Your task to perform on an android device: create a new album in the google photos Image 0: 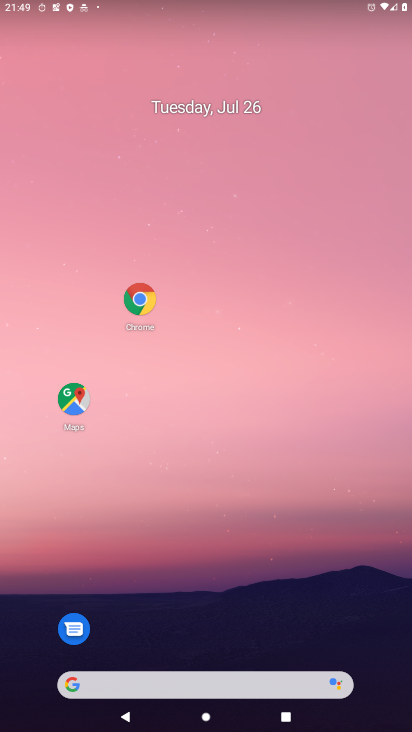
Step 0: drag from (201, 218) to (191, 137)
Your task to perform on an android device: create a new album in the google photos Image 1: 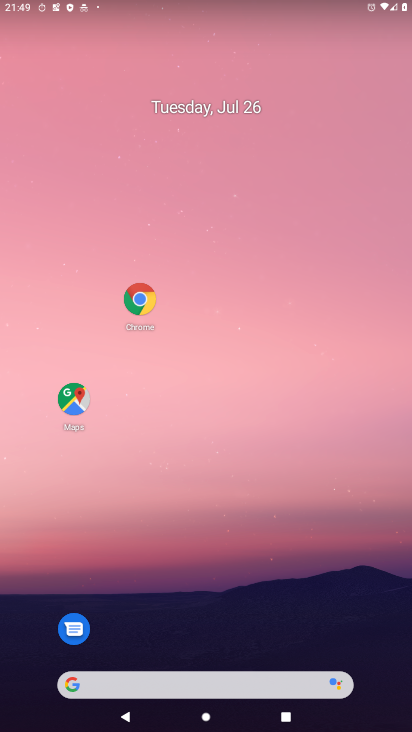
Step 1: drag from (210, 130) to (201, 61)
Your task to perform on an android device: create a new album in the google photos Image 2: 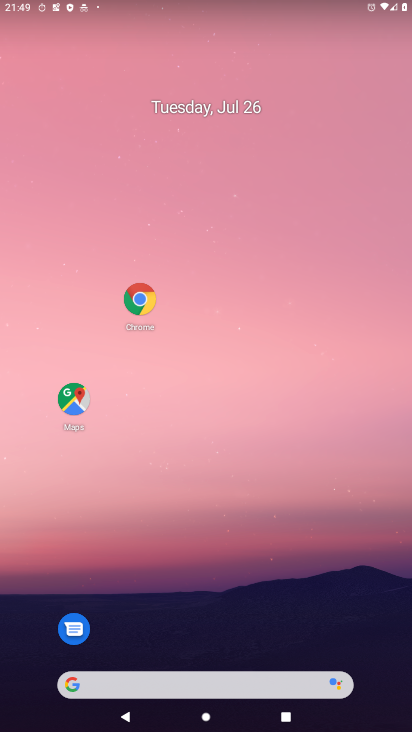
Step 2: drag from (196, 560) to (211, 131)
Your task to perform on an android device: create a new album in the google photos Image 3: 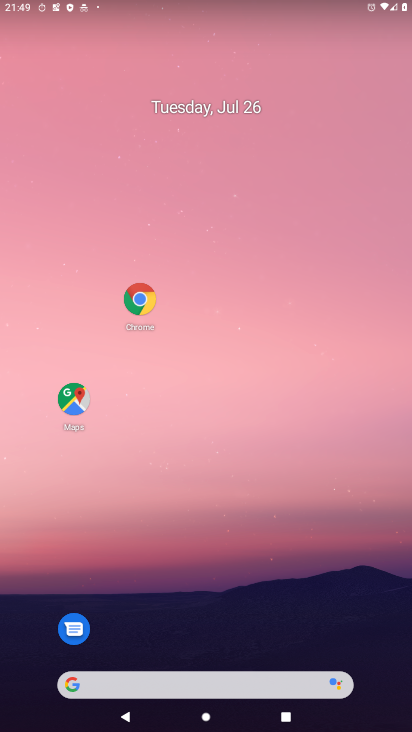
Step 3: click (229, 177)
Your task to perform on an android device: create a new album in the google photos Image 4: 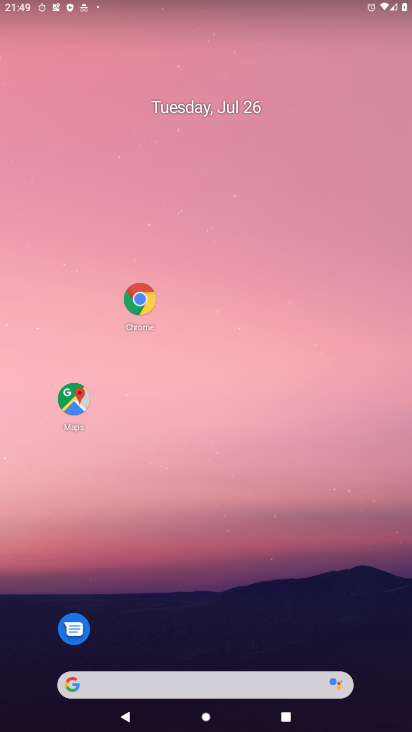
Step 4: drag from (238, 626) to (191, 130)
Your task to perform on an android device: create a new album in the google photos Image 5: 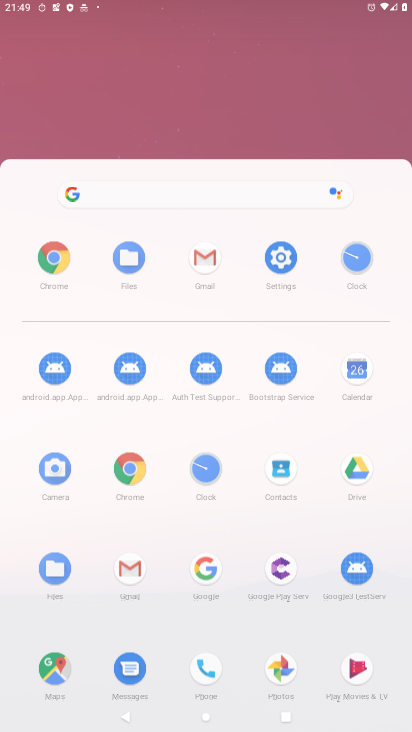
Step 5: drag from (204, 459) to (165, 136)
Your task to perform on an android device: create a new album in the google photos Image 6: 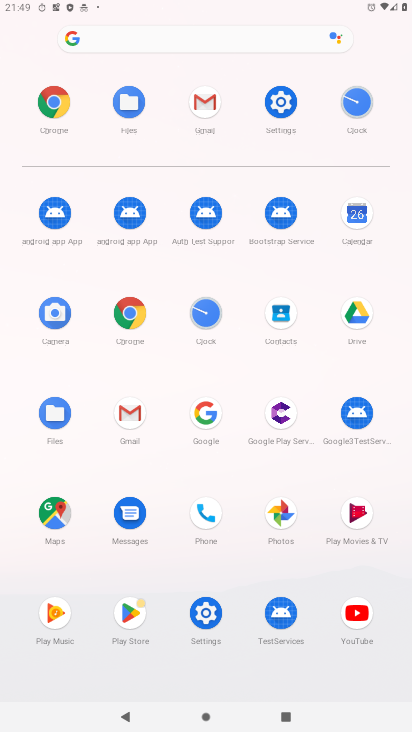
Step 6: click (271, 518)
Your task to perform on an android device: create a new album in the google photos Image 7: 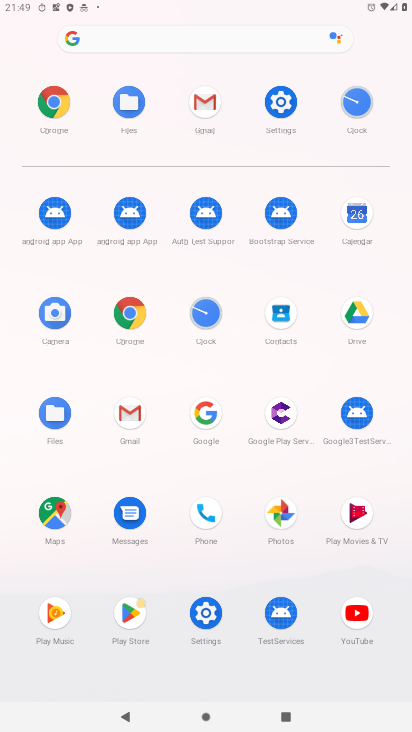
Step 7: click (275, 516)
Your task to perform on an android device: create a new album in the google photos Image 8: 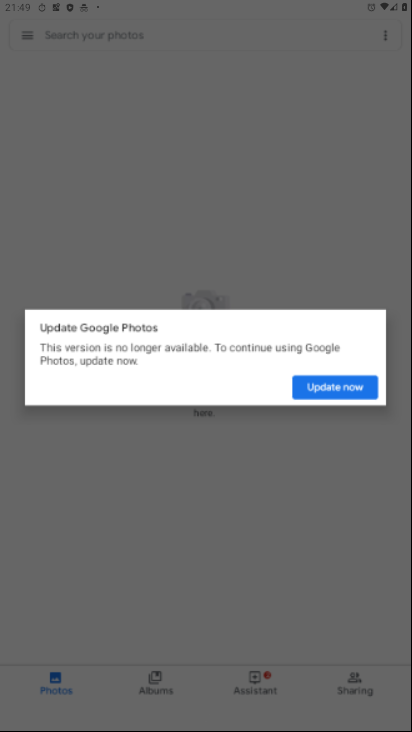
Step 8: click (277, 519)
Your task to perform on an android device: create a new album in the google photos Image 9: 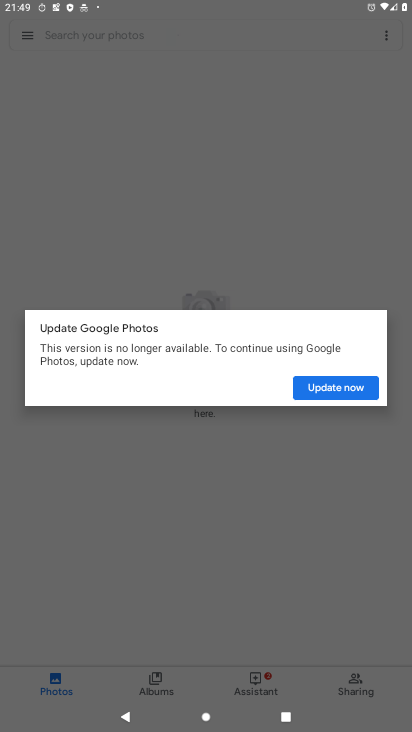
Step 9: click (217, 213)
Your task to perform on an android device: create a new album in the google photos Image 10: 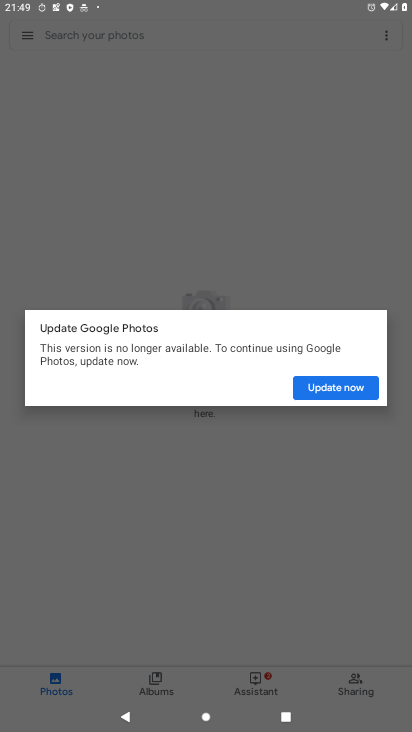
Step 10: click (207, 199)
Your task to perform on an android device: create a new album in the google photos Image 11: 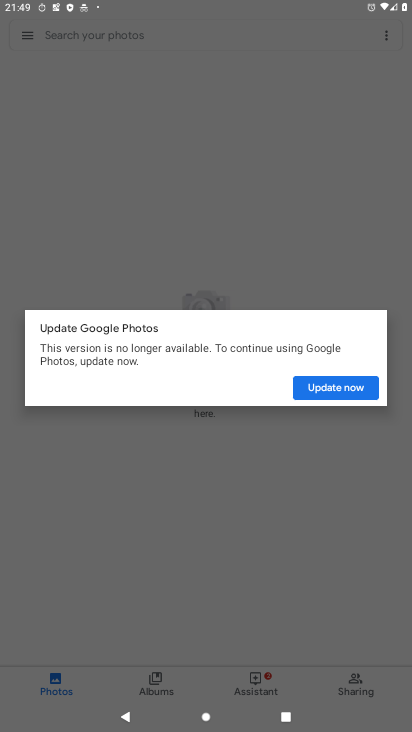
Step 11: click (171, 174)
Your task to perform on an android device: create a new album in the google photos Image 12: 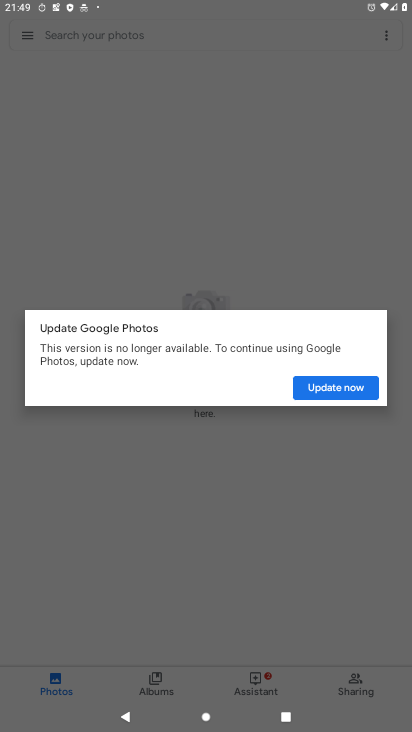
Step 12: click (170, 168)
Your task to perform on an android device: create a new album in the google photos Image 13: 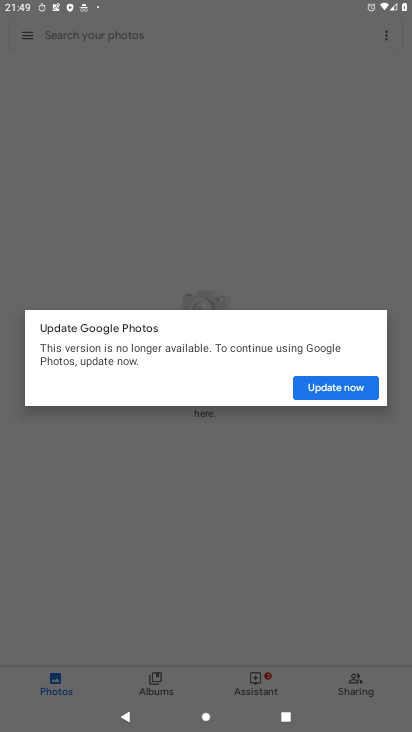
Step 13: click (236, 470)
Your task to perform on an android device: create a new album in the google photos Image 14: 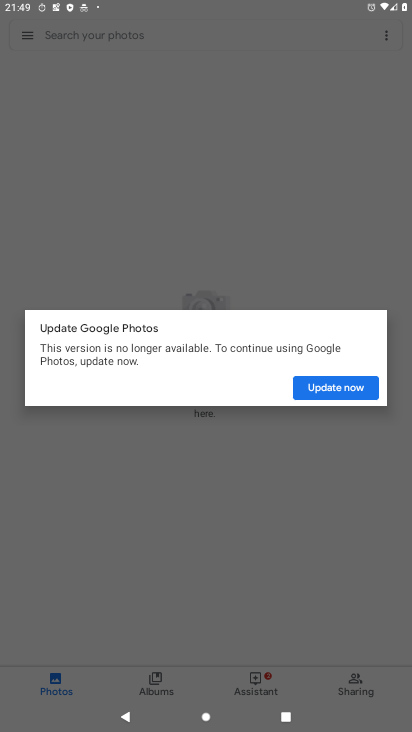
Step 14: click (233, 477)
Your task to perform on an android device: create a new album in the google photos Image 15: 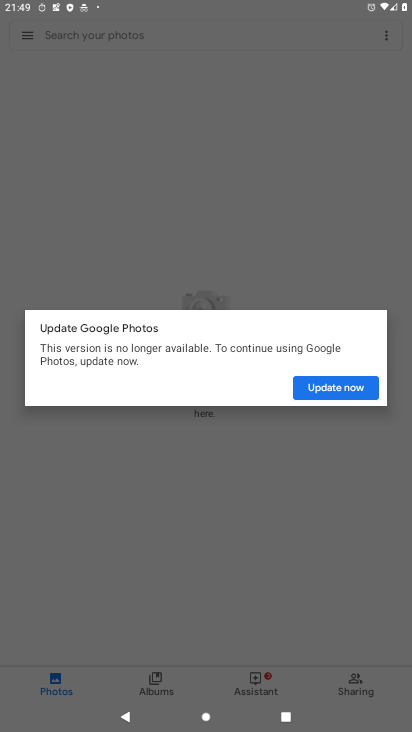
Step 15: click (146, 162)
Your task to perform on an android device: create a new album in the google photos Image 16: 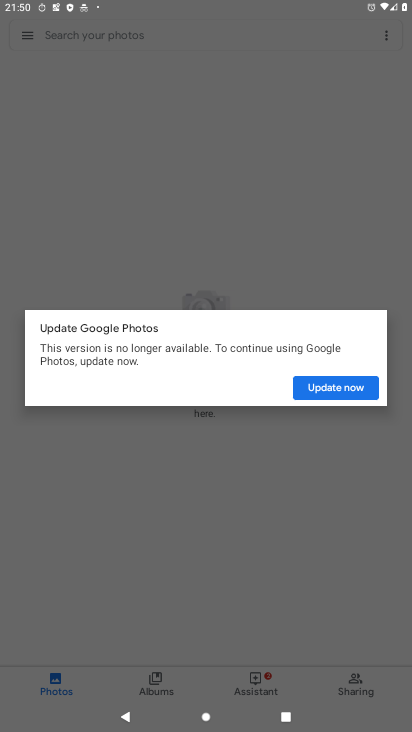
Step 16: click (299, 240)
Your task to perform on an android device: create a new album in the google photos Image 17: 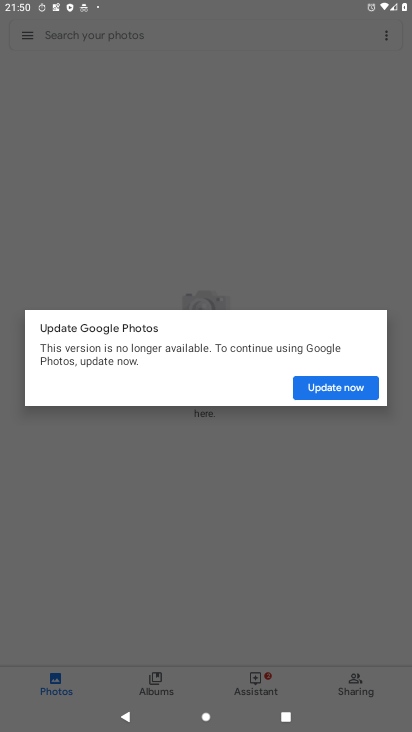
Step 17: click (346, 388)
Your task to perform on an android device: create a new album in the google photos Image 18: 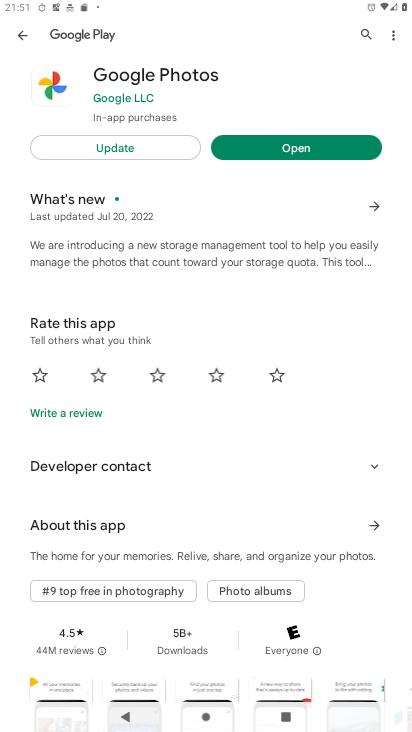
Step 18: click (307, 149)
Your task to perform on an android device: create a new album in the google photos Image 19: 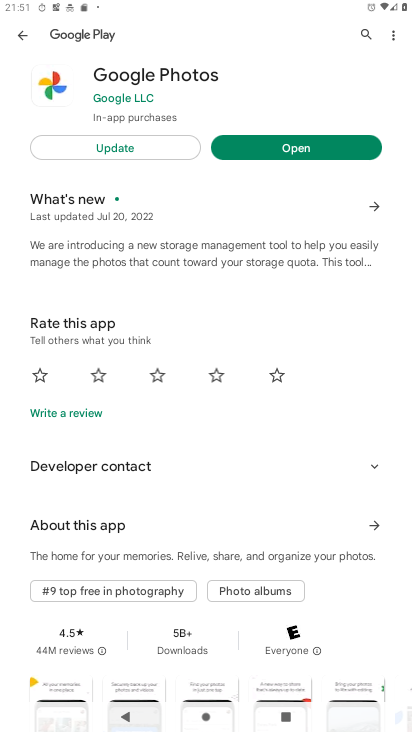
Step 19: click (307, 149)
Your task to perform on an android device: create a new album in the google photos Image 20: 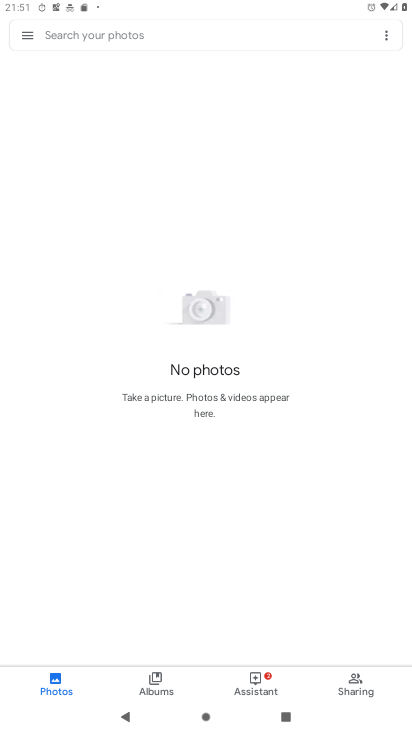
Step 20: click (168, 685)
Your task to perform on an android device: create a new album in the google photos Image 21: 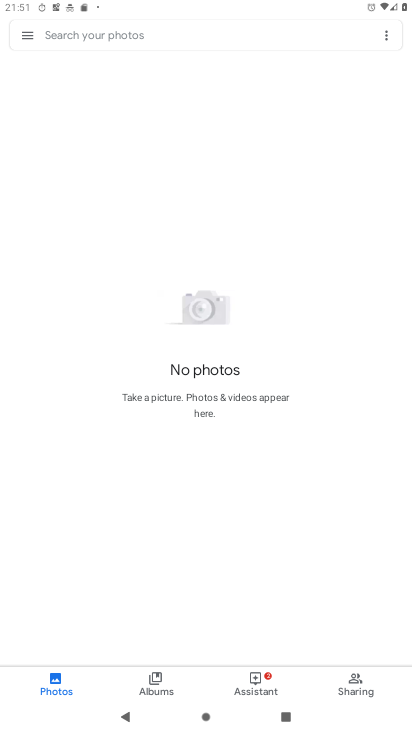
Step 21: click (155, 699)
Your task to perform on an android device: create a new album in the google photos Image 22: 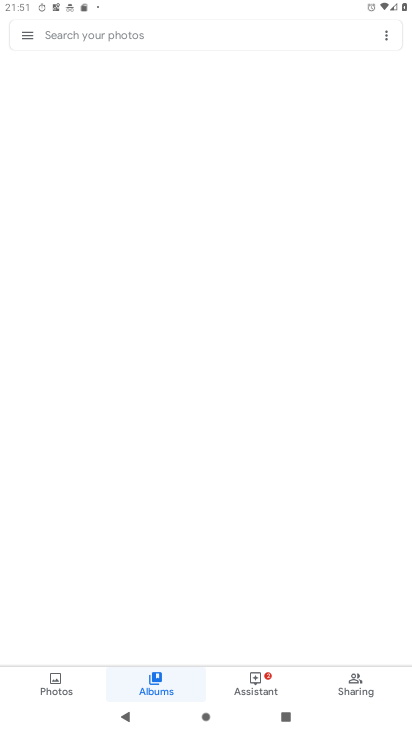
Step 22: click (156, 699)
Your task to perform on an android device: create a new album in the google photos Image 23: 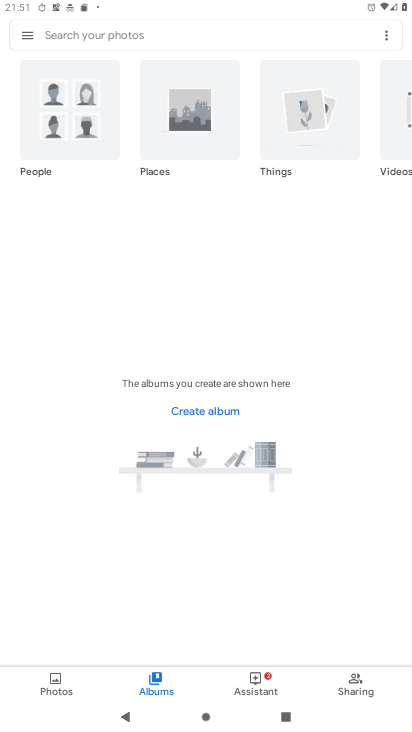
Step 23: task complete